Your task to perform on an android device: Search for vegetarian restaurants on Maps Image 0: 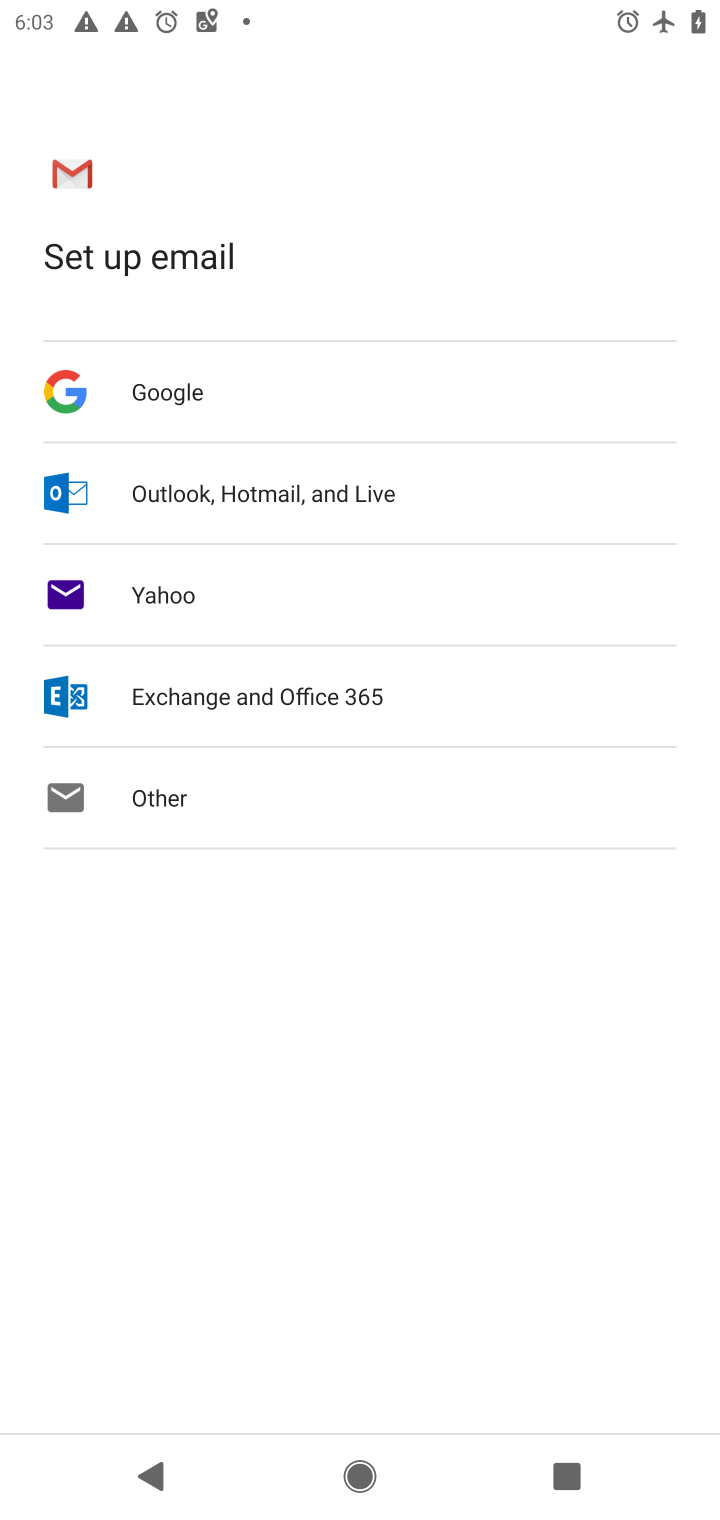
Step 0: press home button
Your task to perform on an android device: Search for vegetarian restaurants on Maps Image 1: 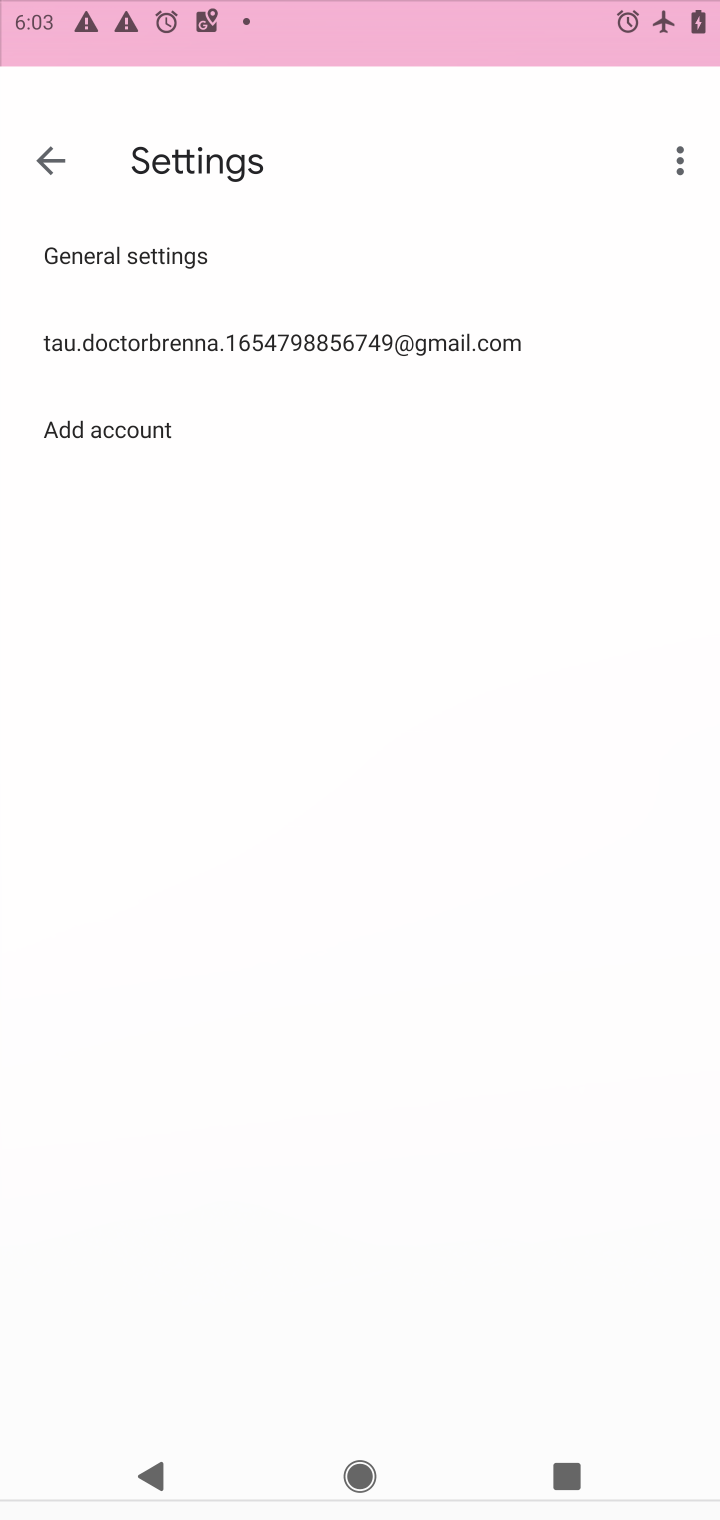
Step 1: press home button
Your task to perform on an android device: Search for vegetarian restaurants on Maps Image 2: 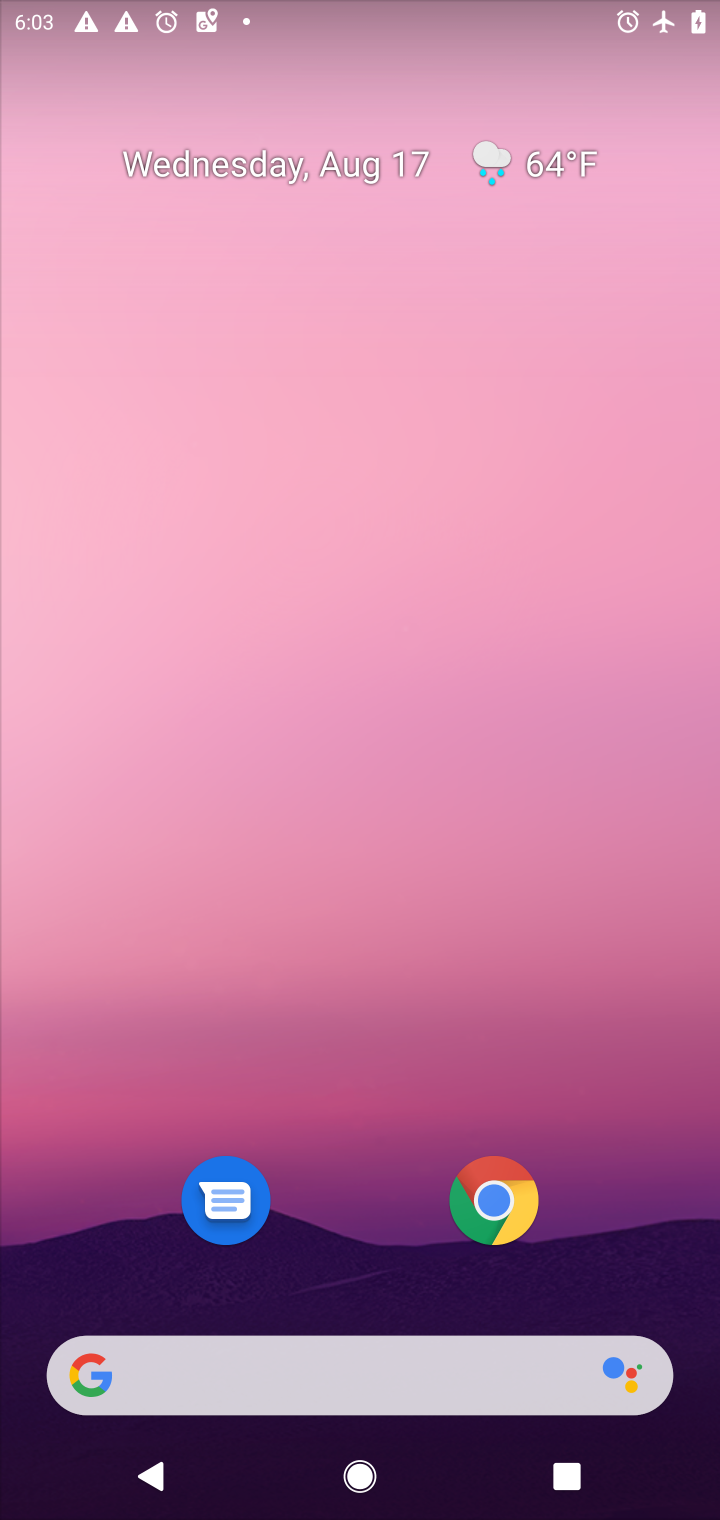
Step 2: drag from (372, 1275) to (372, 321)
Your task to perform on an android device: Search for vegetarian restaurants on Maps Image 3: 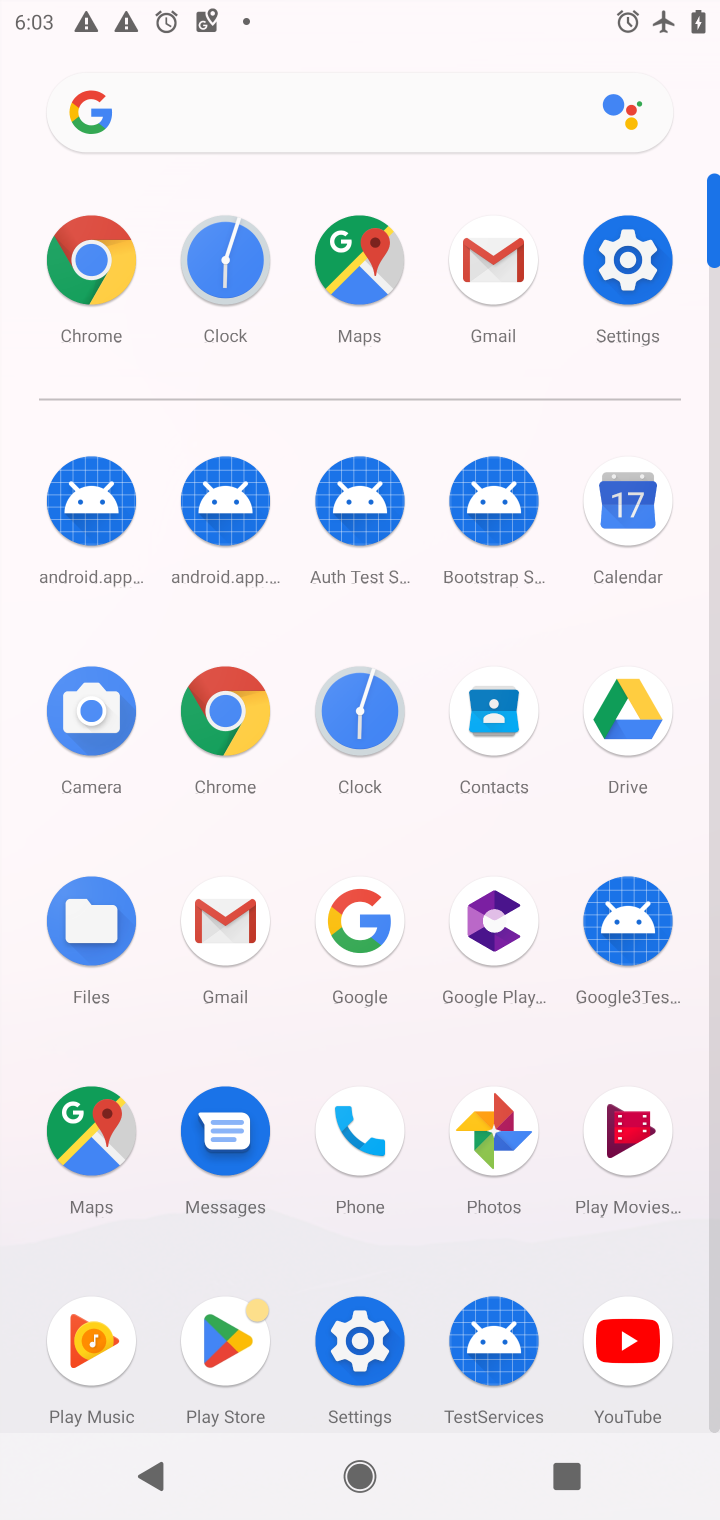
Step 3: click (88, 1137)
Your task to perform on an android device: Search for vegetarian restaurants on Maps Image 4: 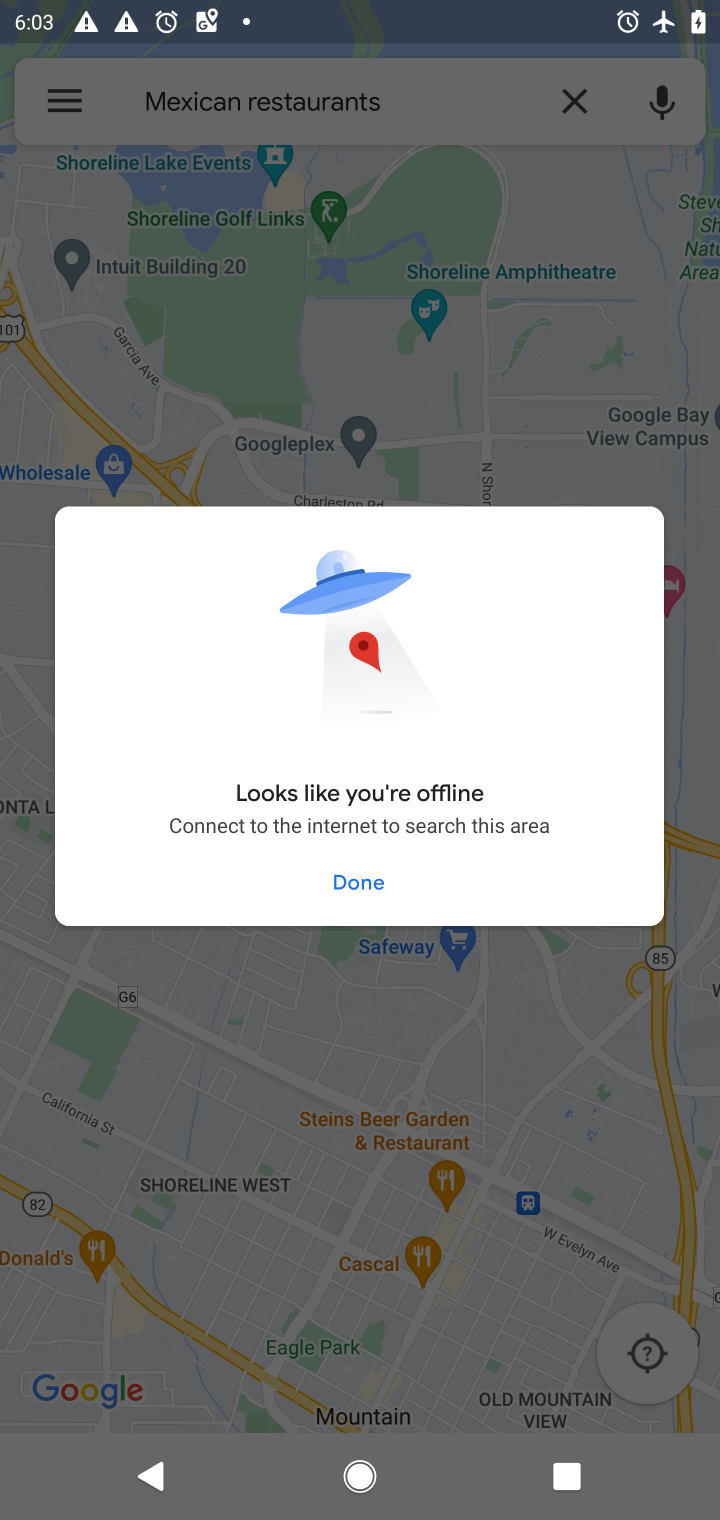
Step 4: task complete